Your task to perform on an android device: add a contact Image 0: 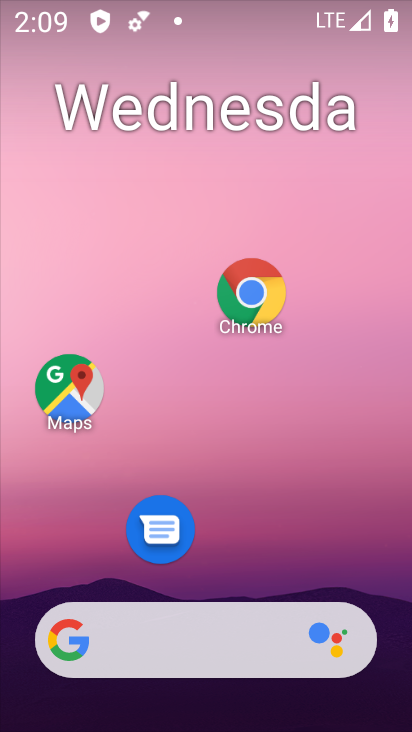
Step 0: drag from (253, 554) to (273, 119)
Your task to perform on an android device: add a contact Image 1: 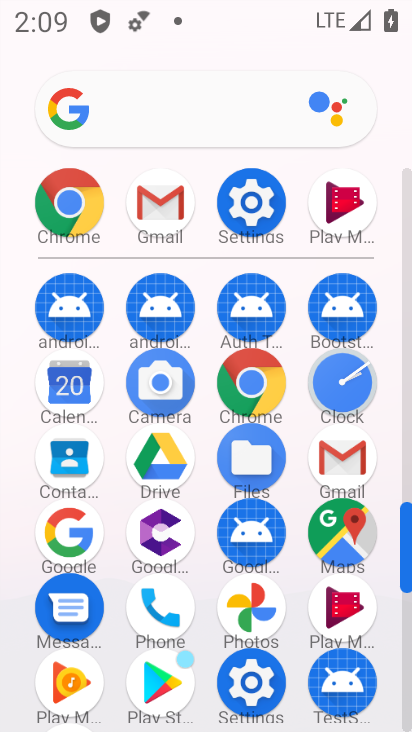
Step 1: click (69, 472)
Your task to perform on an android device: add a contact Image 2: 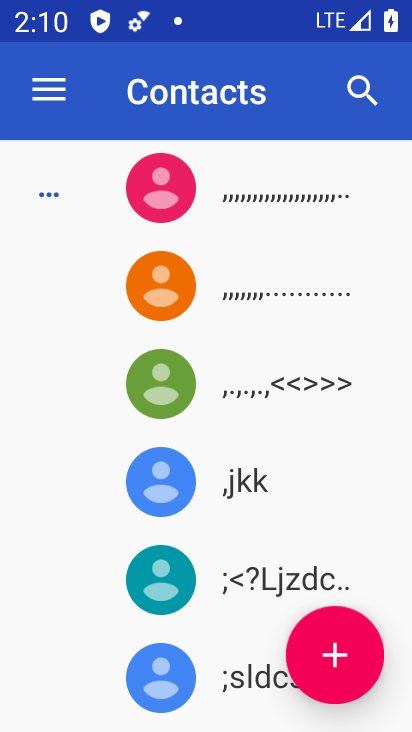
Step 2: click (338, 656)
Your task to perform on an android device: add a contact Image 3: 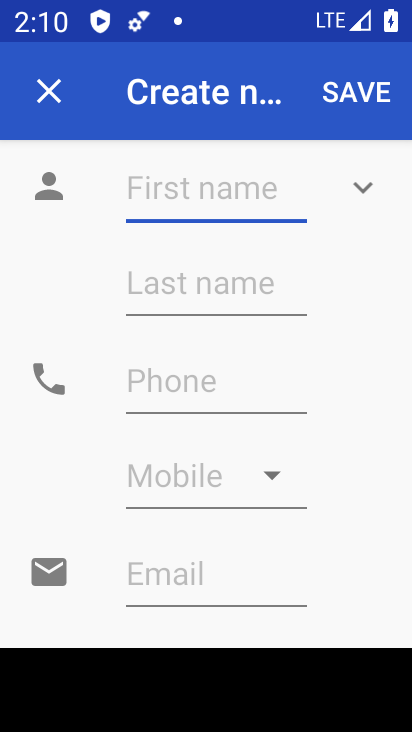
Step 3: type "gfvvjhf"
Your task to perform on an android device: add a contact Image 4: 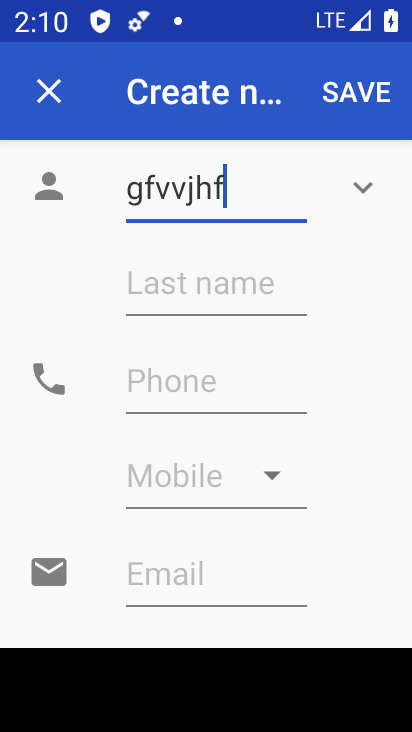
Step 4: click (151, 398)
Your task to perform on an android device: add a contact Image 5: 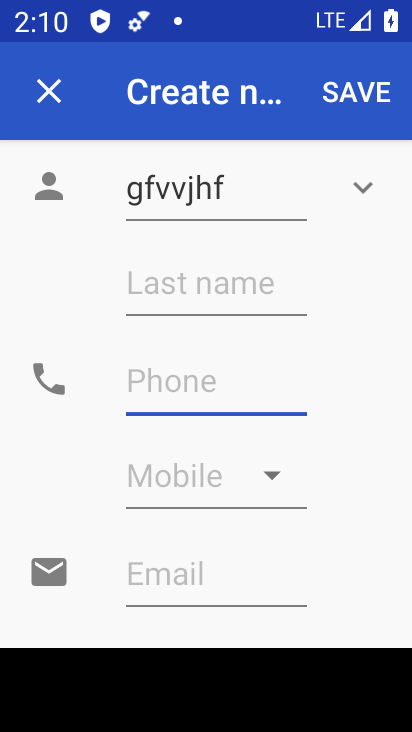
Step 5: type "6876856986"
Your task to perform on an android device: add a contact Image 6: 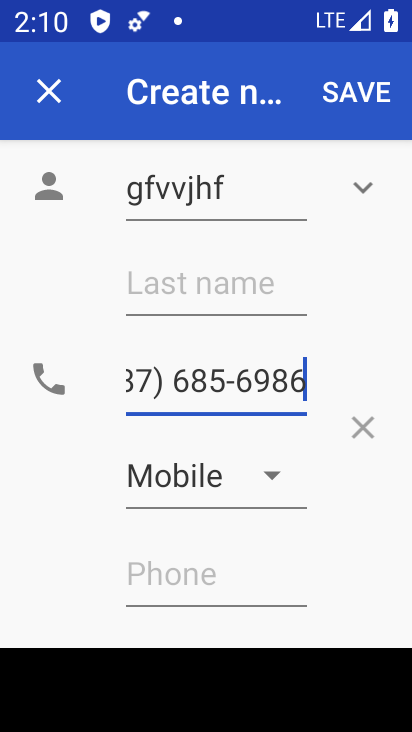
Step 6: click (381, 84)
Your task to perform on an android device: add a contact Image 7: 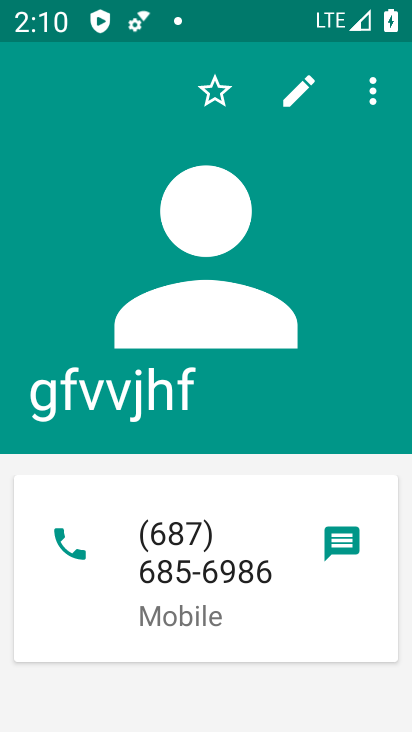
Step 7: task complete